Your task to perform on an android device: add a label to a message in the gmail app Image 0: 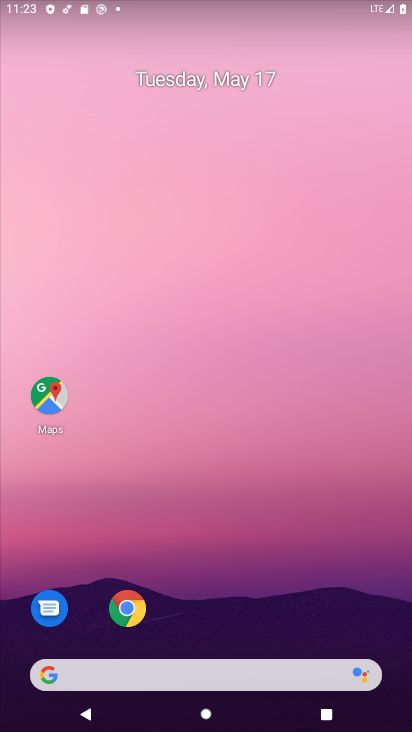
Step 0: drag from (301, 549) to (187, 24)
Your task to perform on an android device: add a label to a message in the gmail app Image 1: 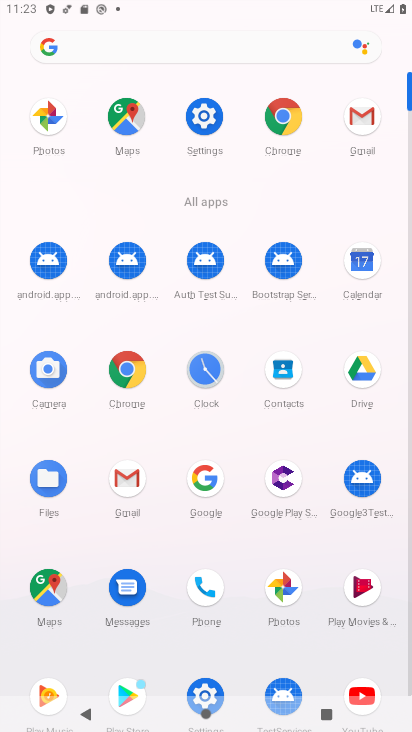
Step 1: click (364, 118)
Your task to perform on an android device: add a label to a message in the gmail app Image 2: 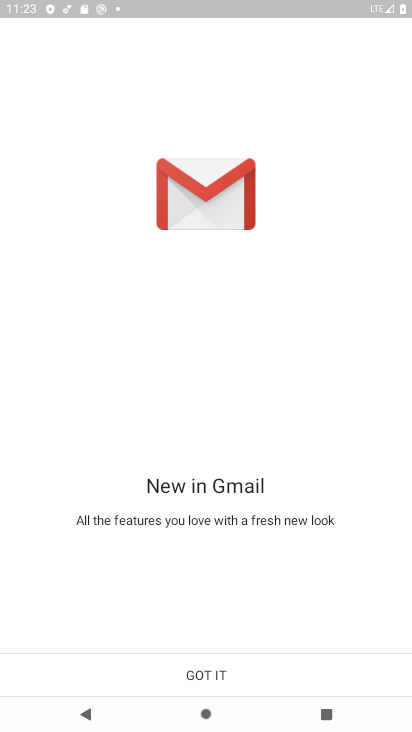
Step 2: click (208, 676)
Your task to perform on an android device: add a label to a message in the gmail app Image 3: 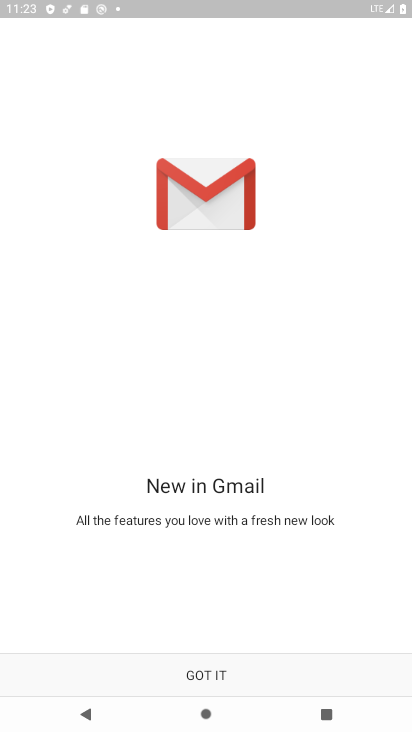
Step 3: click (208, 676)
Your task to perform on an android device: add a label to a message in the gmail app Image 4: 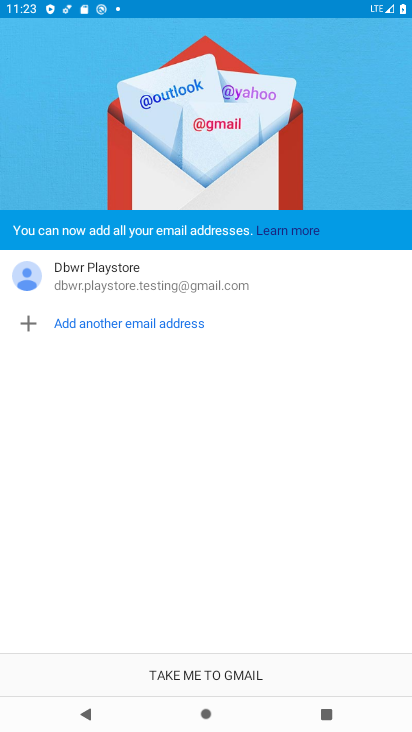
Step 4: click (208, 675)
Your task to perform on an android device: add a label to a message in the gmail app Image 5: 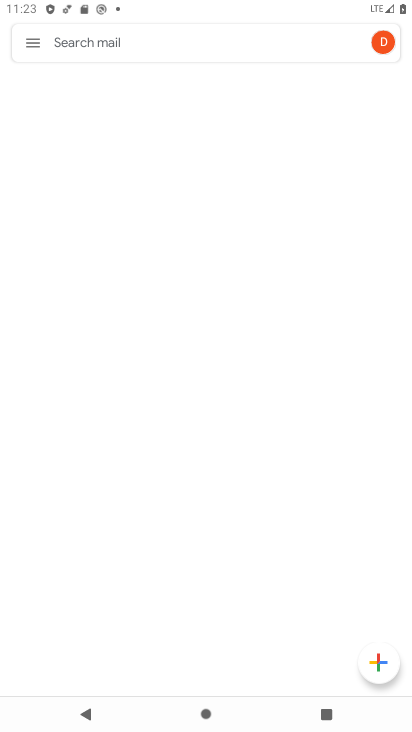
Step 5: click (33, 39)
Your task to perform on an android device: add a label to a message in the gmail app Image 6: 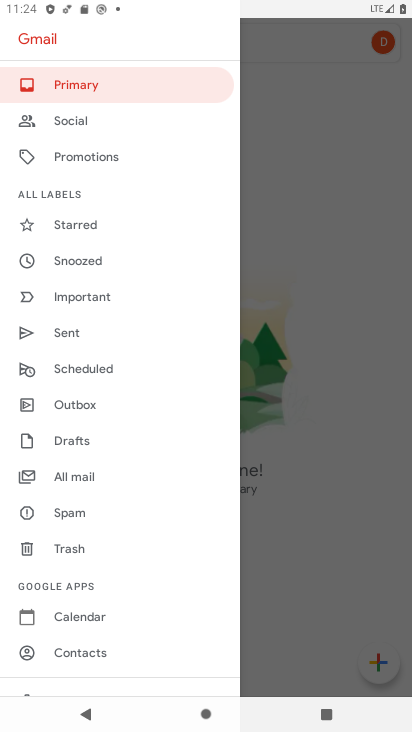
Step 6: click (123, 480)
Your task to perform on an android device: add a label to a message in the gmail app Image 7: 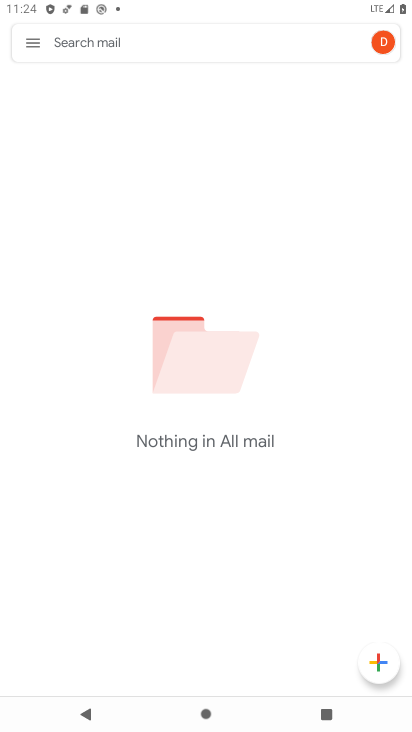
Step 7: task complete